Your task to perform on an android device: open app "Facebook Lite" (install if not already installed) Image 0: 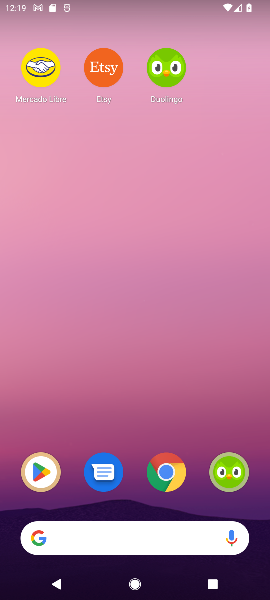
Step 0: click (30, 477)
Your task to perform on an android device: open app "Facebook Lite" (install if not already installed) Image 1: 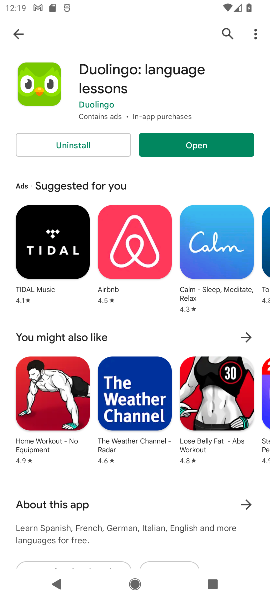
Step 1: click (225, 31)
Your task to perform on an android device: open app "Facebook Lite" (install if not already installed) Image 2: 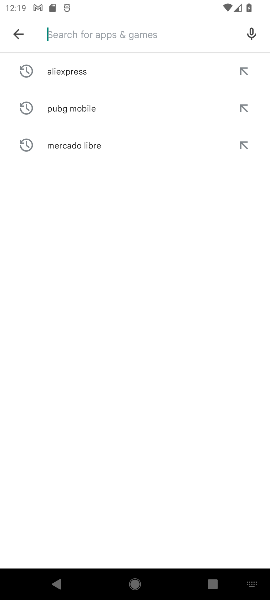
Step 2: type "facebook lite"
Your task to perform on an android device: open app "Facebook Lite" (install if not already installed) Image 3: 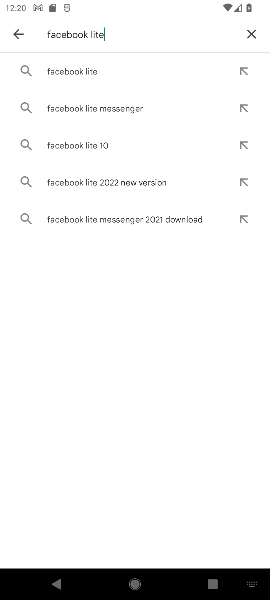
Step 3: click (145, 62)
Your task to perform on an android device: open app "Facebook Lite" (install if not already installed) Image 4: 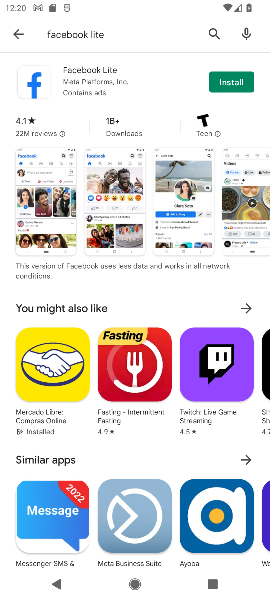
Step 4: click (105, 70)
Your task to perform on an android device: open app "Facebook Lite" (install if not already installed) Image 5: 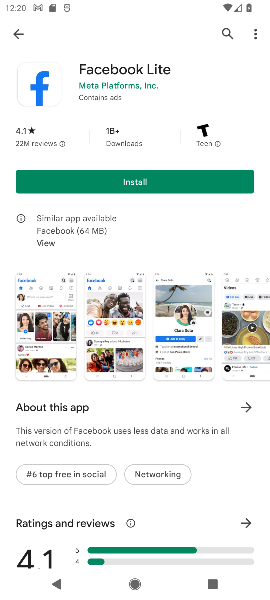
Step 5: click (148, 186)
Your task to perform on an android device: open app "Facebook Lite" (install if not already installed) Image 6: 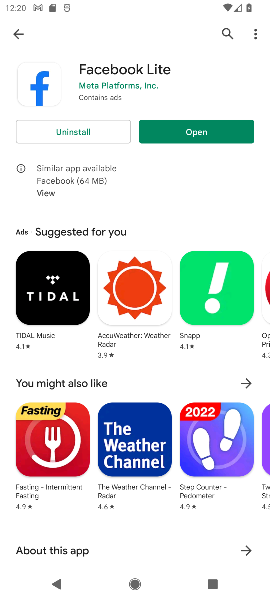
Step 6: click (223, 126)
Your task to perform on an android device: open app "Facebook Lite" (install if not already installed) Image 7: 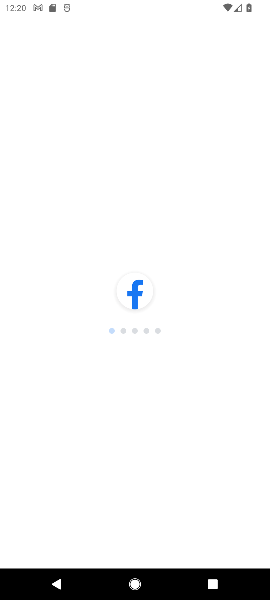
Step 7: task complete